Your task to perform on an android device: Is it going to rain today? Image 0: 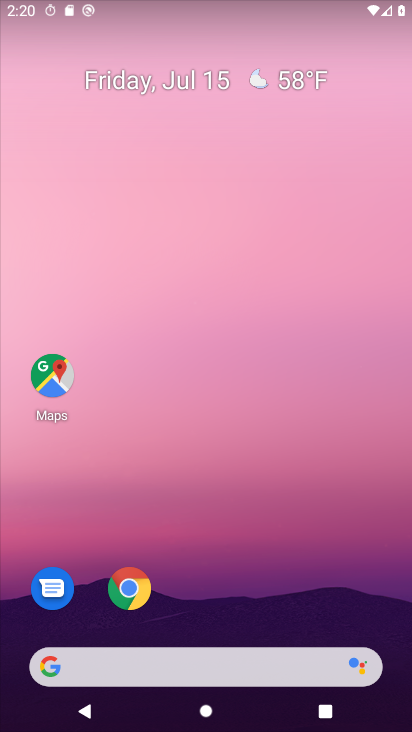
Step 0: click (201, 655)
Your task to perform on an android device: Is it going to rain today? Image 1: 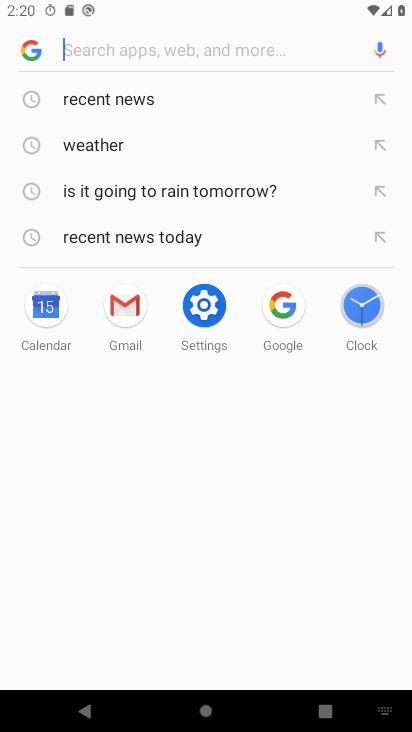
Step 1: type "is it going to rain today?"
Your task to perform on an android device: Is it going to rain today? Image 2: 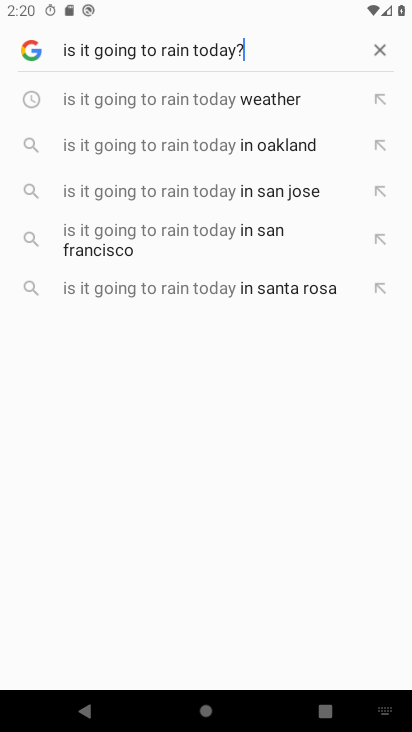
Step 2: click (141, 108)
Your task to perform on an android device: Is it going to rain today? Image 3: 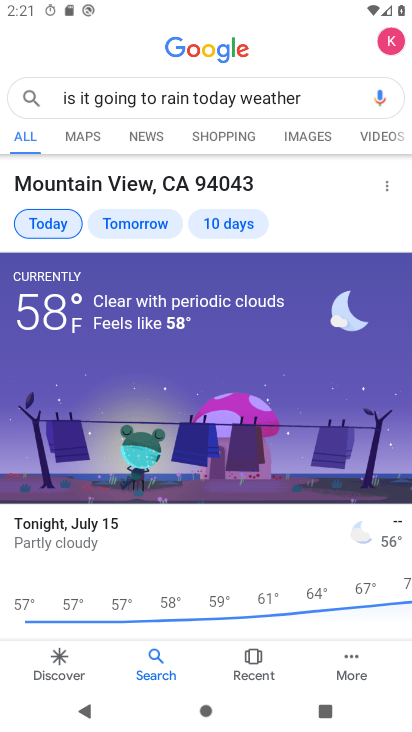
Step 3: task complete